Your task to perform on an android device: Go to Maps Image 0: 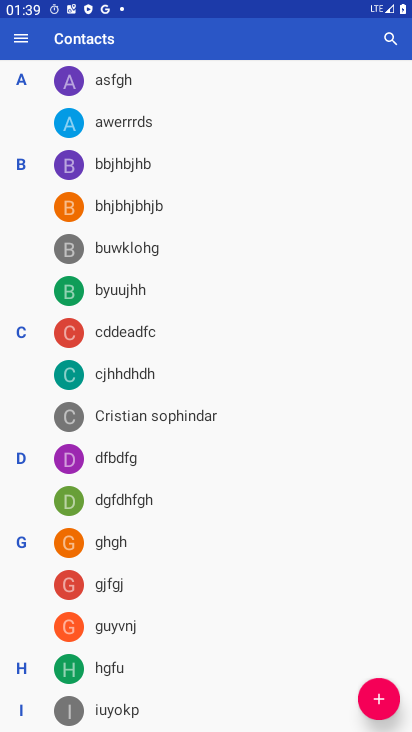
Step 0: press home button
Your task to perform on an android device: Go to Maps Image 1: 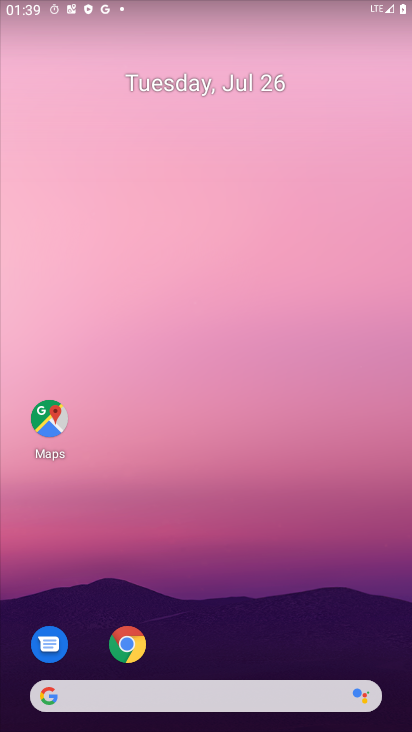
Step 1: click (47, 423)
Your task to perform on an android device: Go to Maps Image 2: 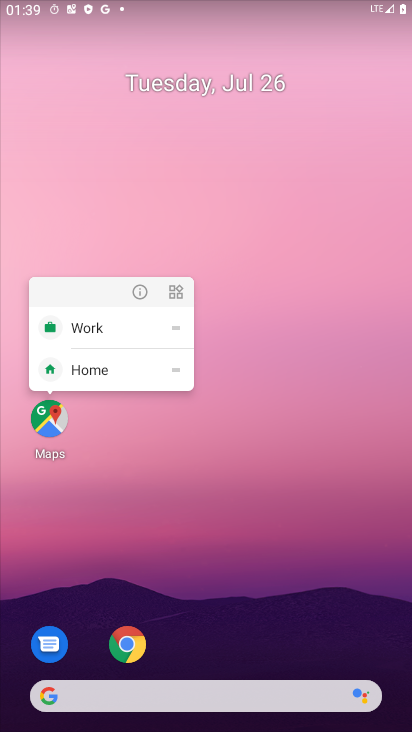
Step 2: click (53, 417)
Your task to perform on an android device: Go to Maps Image 3: 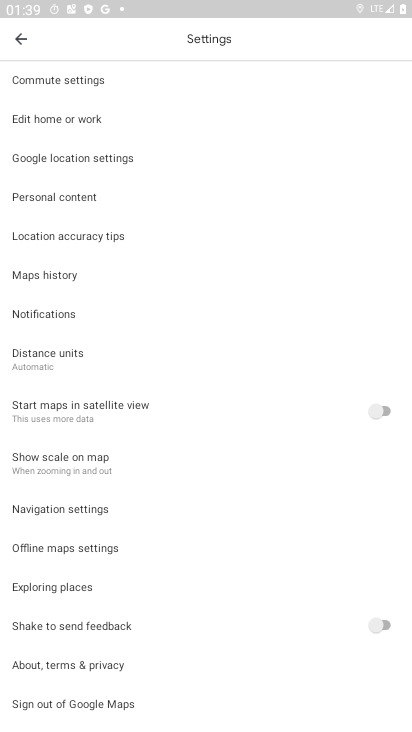
Step 3: click (20, 35)
Your task to perform on an android device: Go to Maps Image 4: 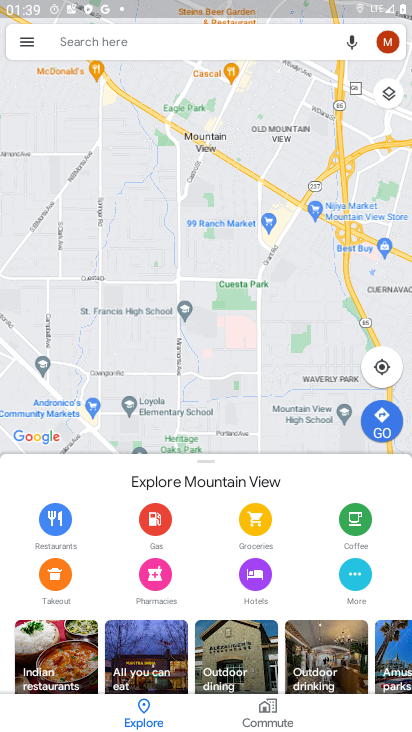
Step 4: task complete